Your task to perform on an android device: Go to internet settings Image 0: 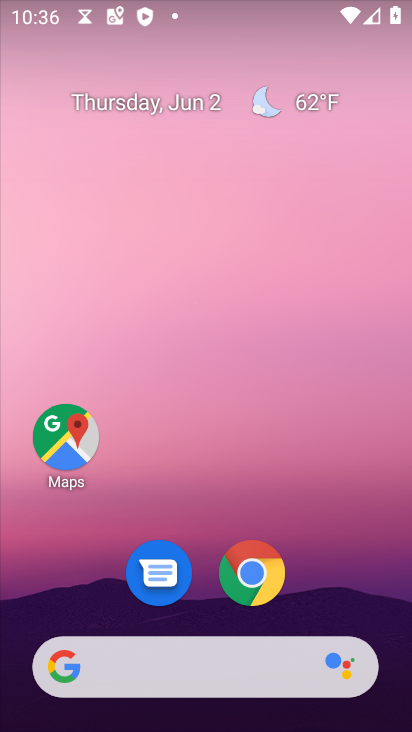
Step 0: drag from (326, 527) to (302, 79)
Your task to perform on an android device: Go to internet settings Image 1: 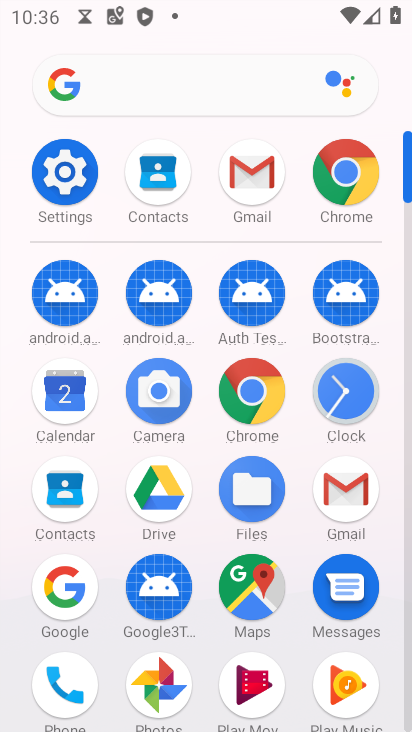
Step 1: click (68, 173)
Your task to perform on an android device: Go to internet settings Image 2: 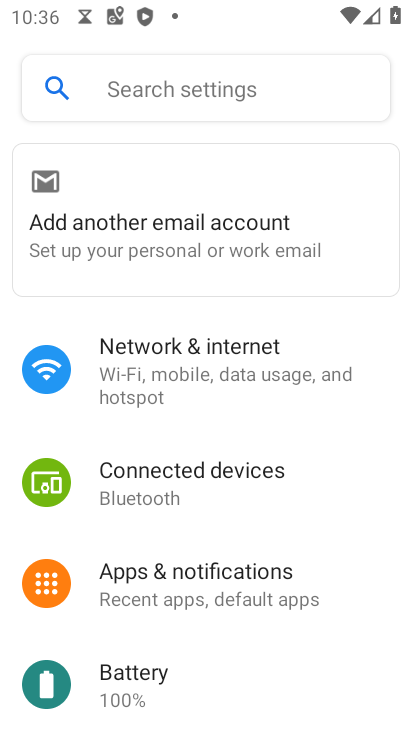
Step 2: click (167, 374)
Your task to perform on an android device: Go to internet settings Image 3: 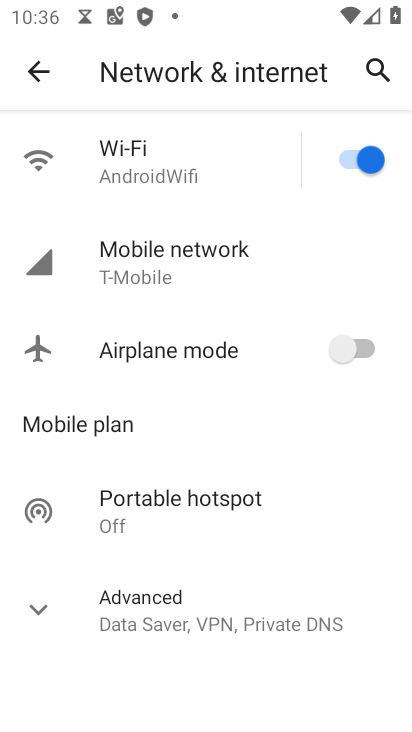
Step 3: click (134, 167)
Your task to perform on an android device: Go to internet settings Image 4: 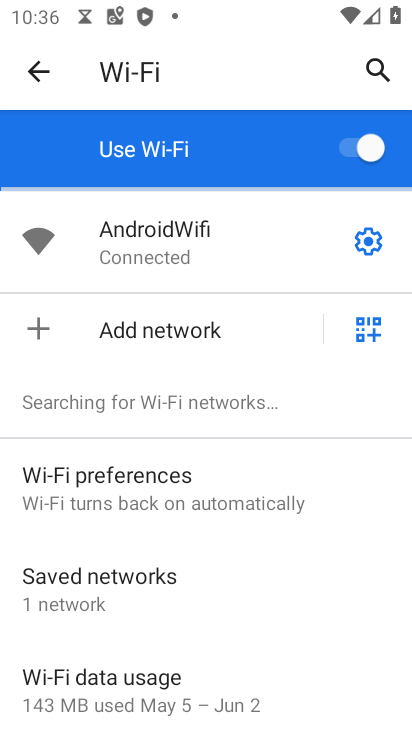
Step 4: task complete